Your task to perform on an android device: Go to ESPN.com Image 0: 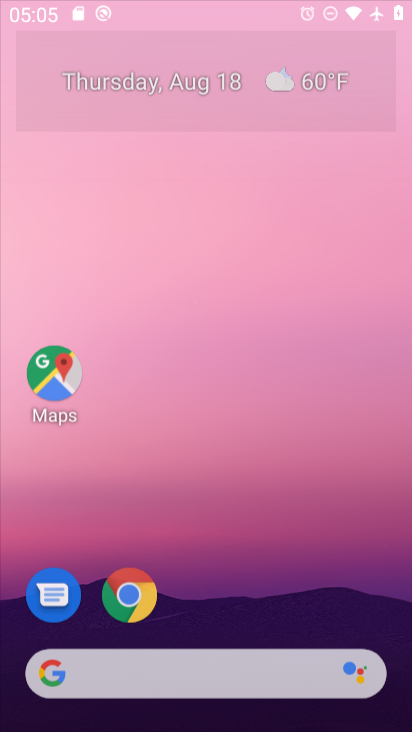
Step 0: press home button
Your task to perform on an android device: Go to ESPN.com Image 1: 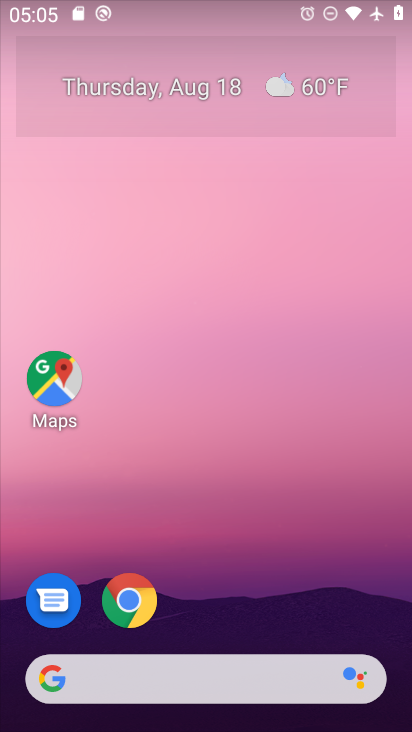
Step 1: click (48, 685)
Your task to perform on an android device: Go to ESPN.com Image 2: 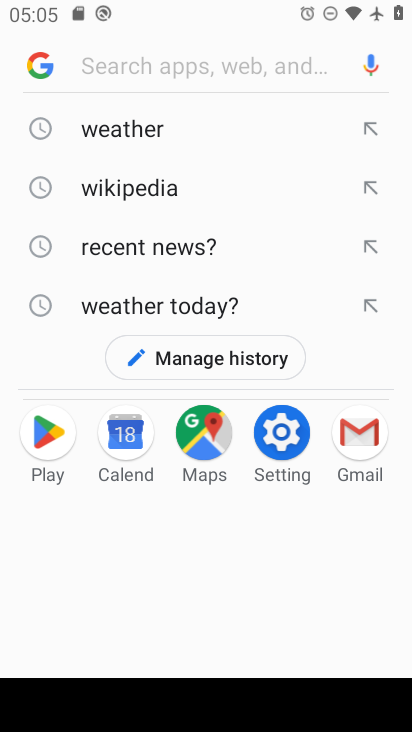
Step 2: type "ESPN.com"
Your task to perform on an android device: Go to ESPN.com Image 3: 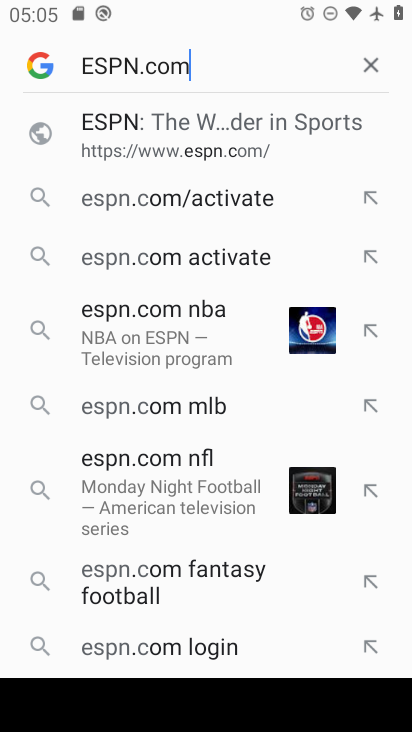
Step 3: press enter
Your task to perform on an android device: Go to ESPN.com Image 4: 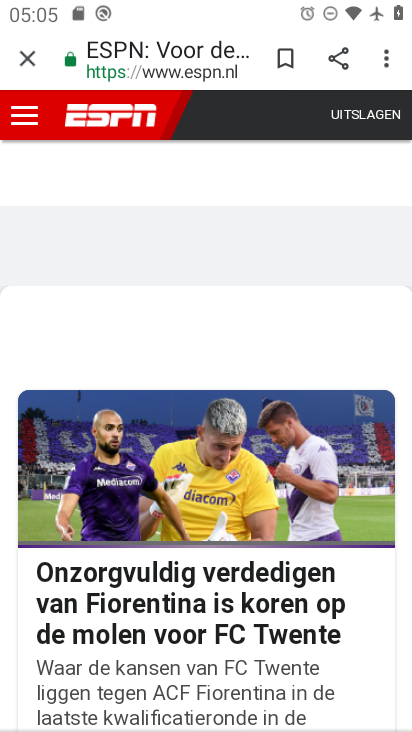
Step 4: task complete